Your task to perform on an android device: turn off improve location accuracy Image 0: 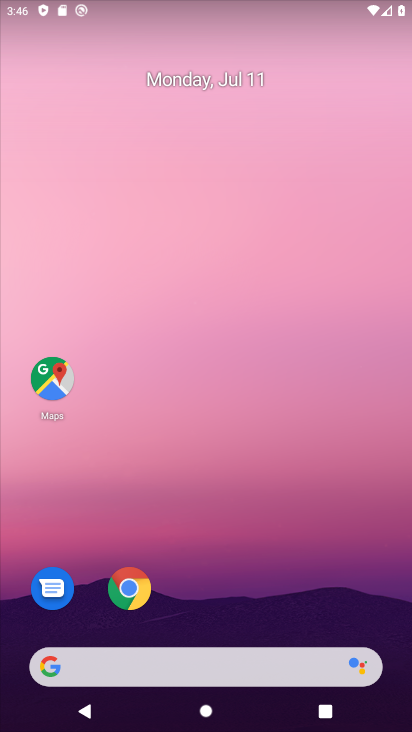
Step 0: drag from (210, 654) to (222, 69)
Your task to perform on an android device: turn off improve location accuracy Image 1: 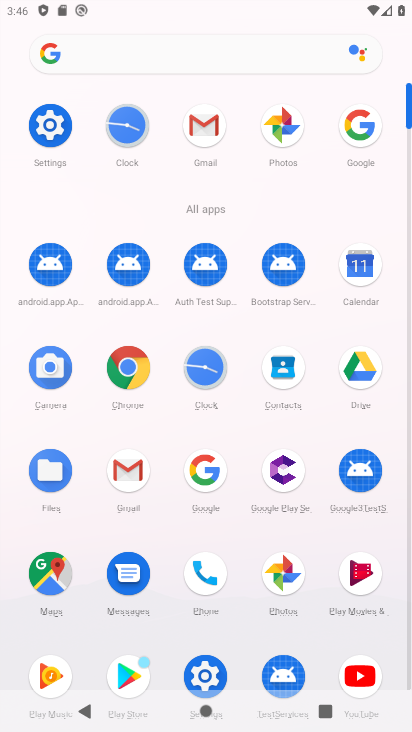
Step 1: click (201, 660)
Your task to perform on an android device: turn off improve location accuracy Image 2: 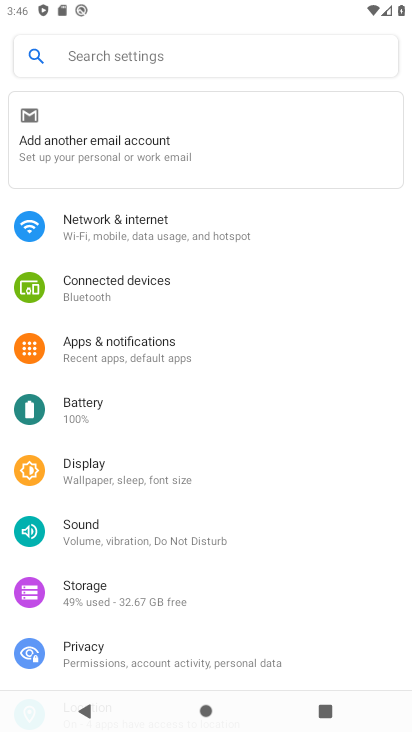
Step 2: drag from (120, 614) to (125, 281)
Your task to perform on an android device: turn off improve location accuracy Image 3: 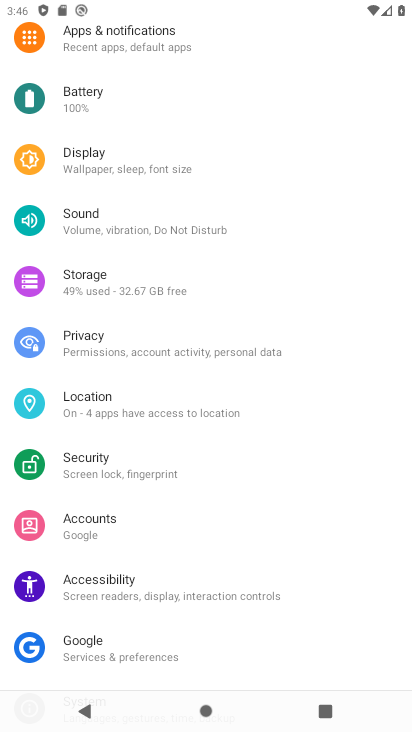
Step 3: click (120, 407)
Your task to perform on an android device: turn off improve location accuracy Image 4: 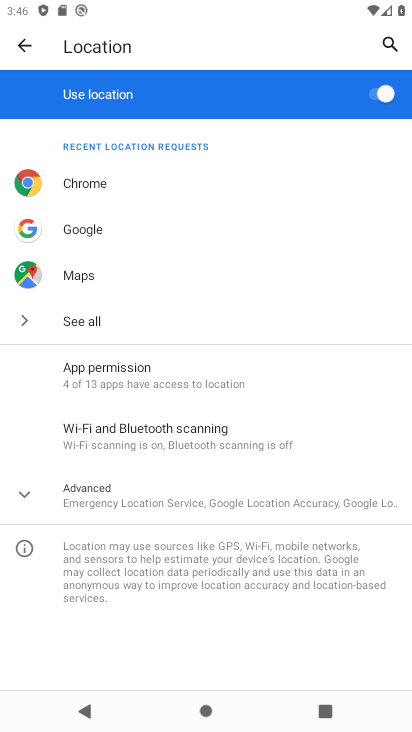
Step 4: click (96, 492)
Your task to perform on an android device: turn off improve location accuracy Image 5: 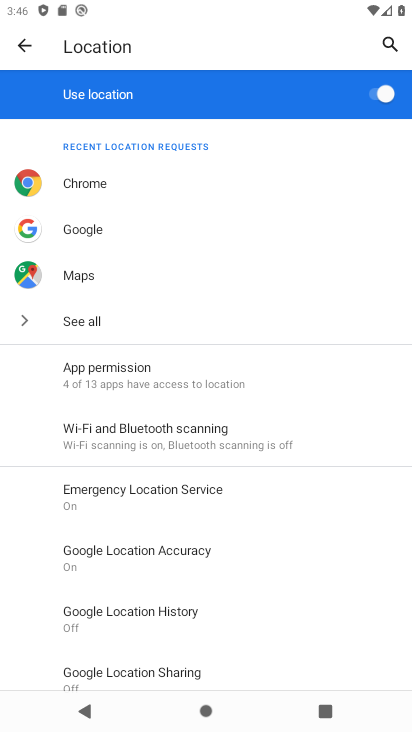
Step 5: click (142, 570)
Your task to perform on an android device: turn off improve location accuracy Image 6: 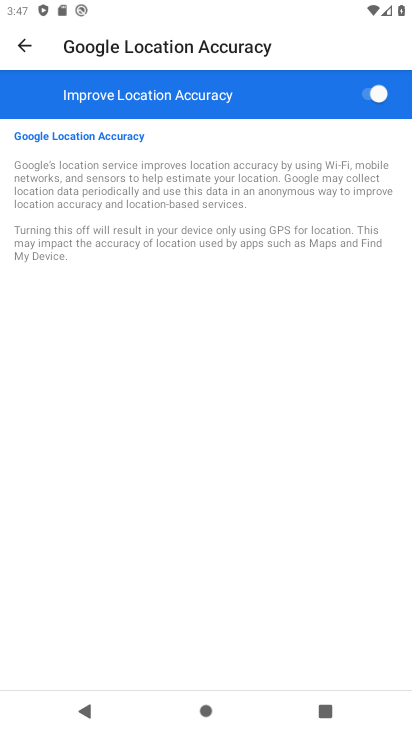
Step 6: click (378, 93)
Your task to perform on an android device: turn off improve location accuracy Image 7: 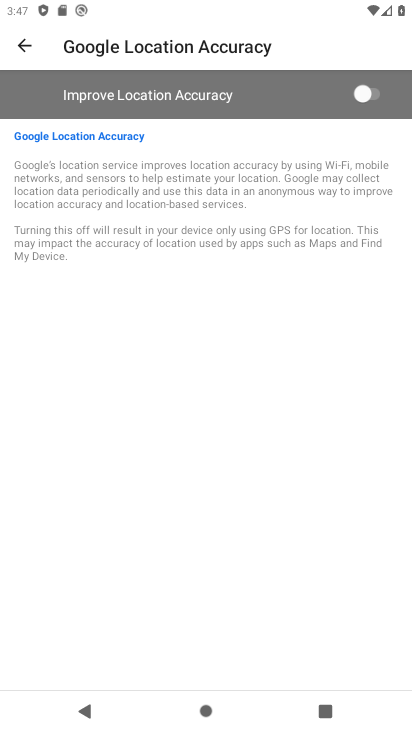
Step 7: task complete